Your task to perform on an android device: all mails in gmail Image 0: 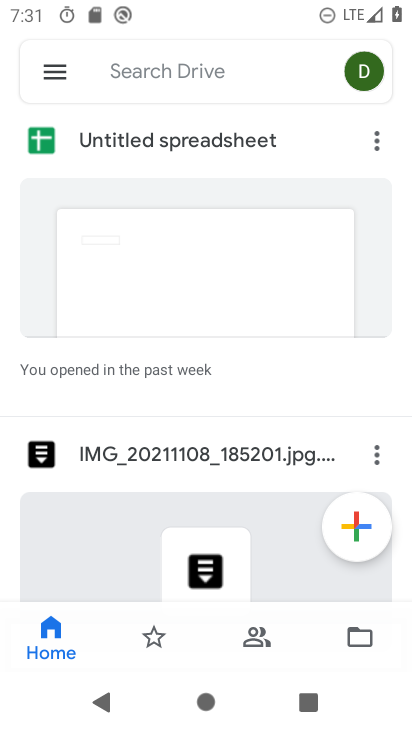
Step 0: press home button
Your task to perform on an android device: all mails in gmail Image 1: 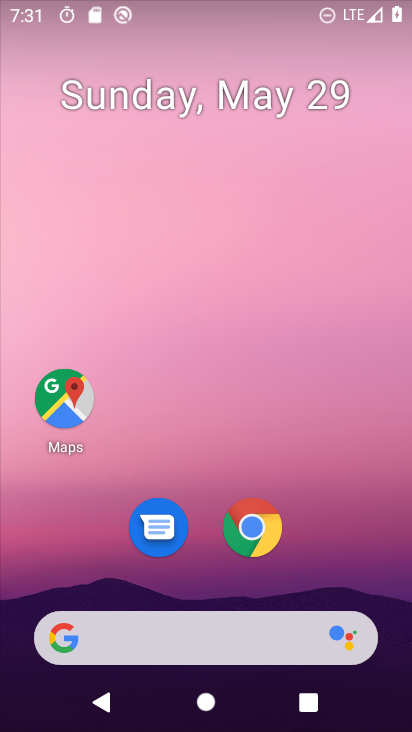
Step 1: drag from (406, 664) to (268, 0)
Your task to perform on an android device: all mails in gmail Image 2: 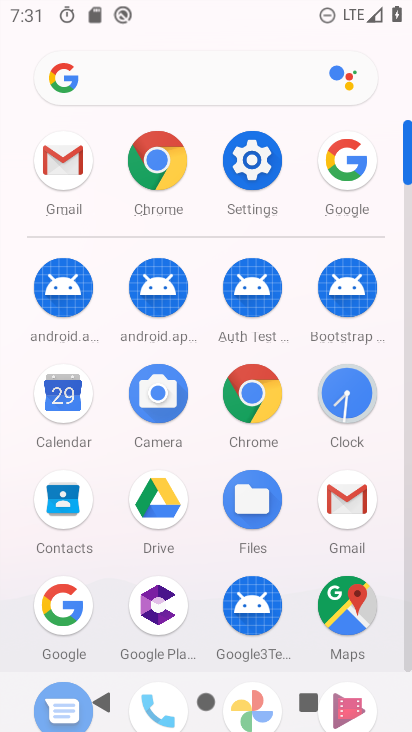
Step 2: click (72, 188)
Your task to perform on an android device: all mails in gmail Image 3: 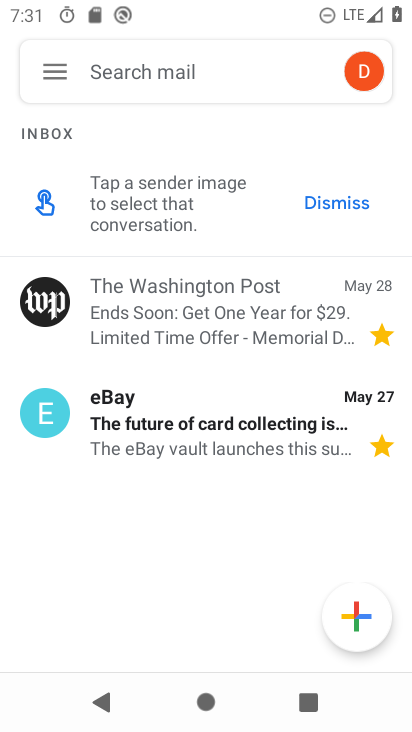
Step 3: click (35, 57)
Your task to perform on an android device: all mails in gmail Image 4: 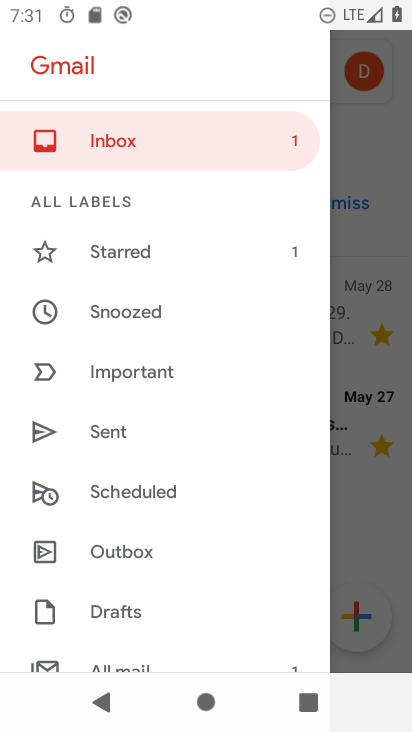
Step 4: drag from (110, 579) to (109, 127)
Your task to perform on an android device: all mails in gmail Image 5: 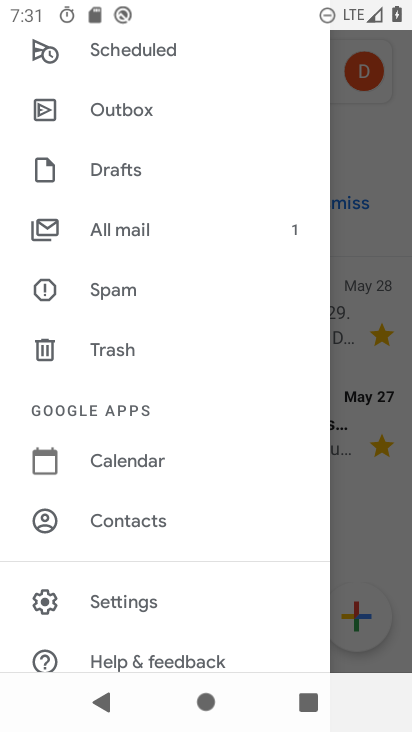
Step 5: click (135, 221)
Your task to perform on an android device: all mails in gmail Image 6: 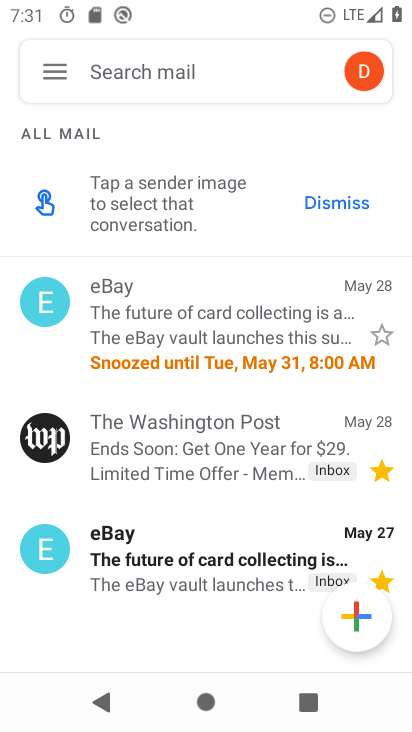
Step 6: task complete